Your task to perform on an android device: Add logitech g910 to the cart on target.com Image 0: 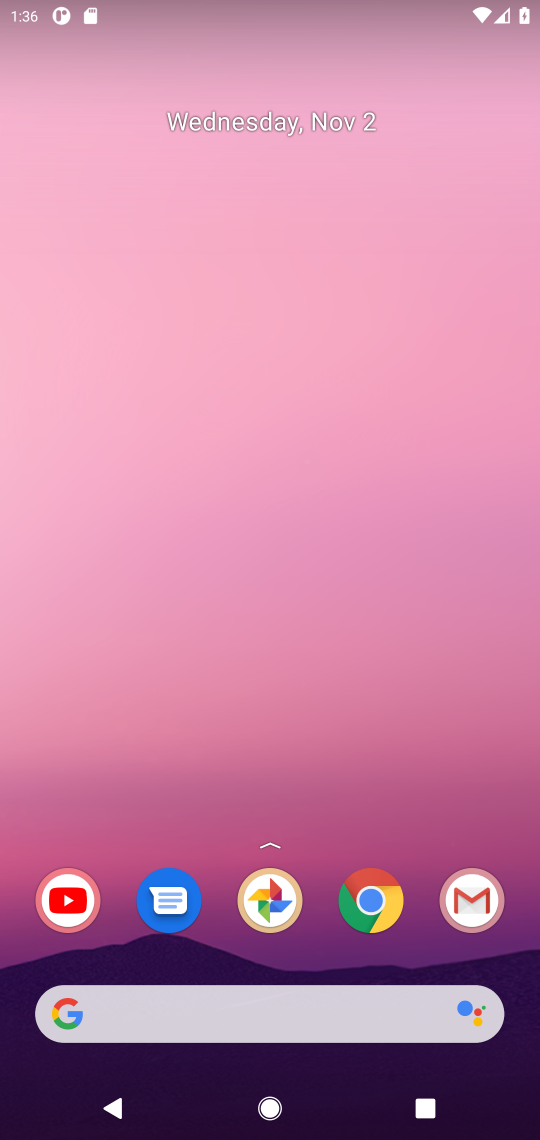
Step 0: click (382, 899)
Your task to perform on an android device: Add logitech g910 to the cart on target.com Image 1: 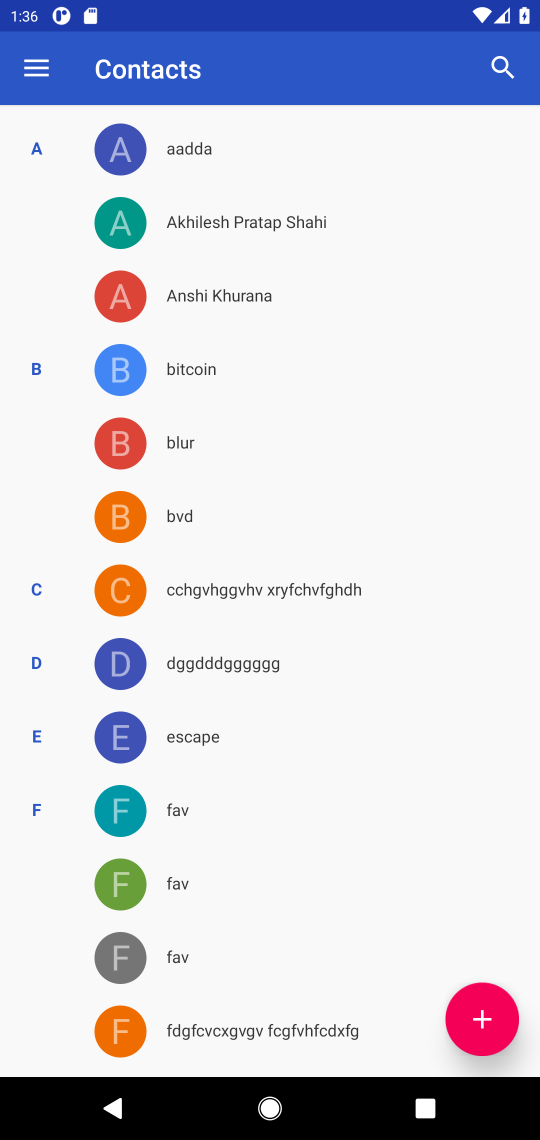
Step 1: press home button
Your task to perform on an android device: Add logitech g910 to the cart on target.com Image 2: 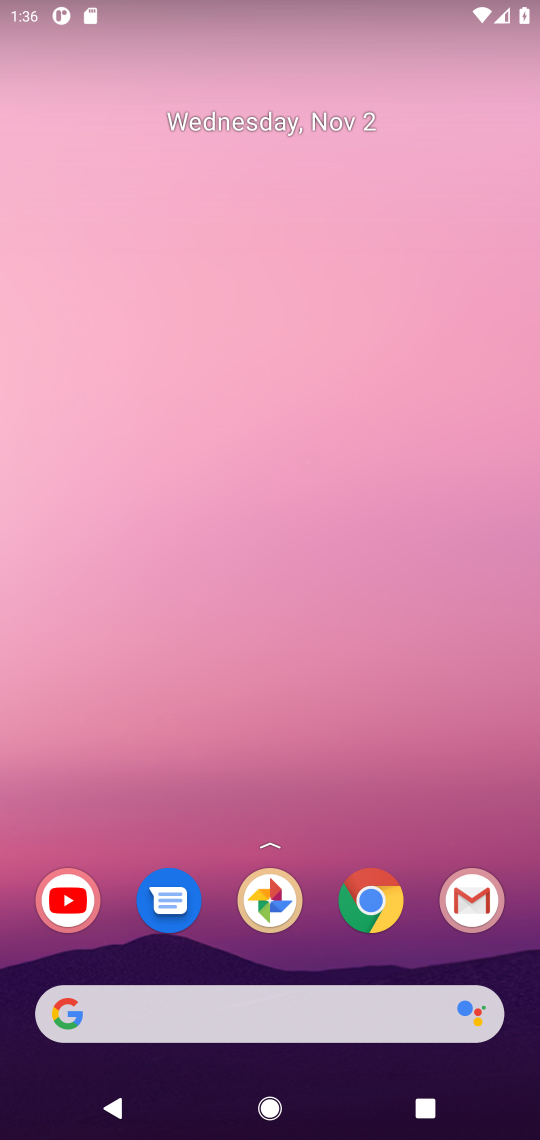
Step 2: click (375, 894)
Your task to perform on an android device: Add logitech g910 to the cart on target.com Image 3: 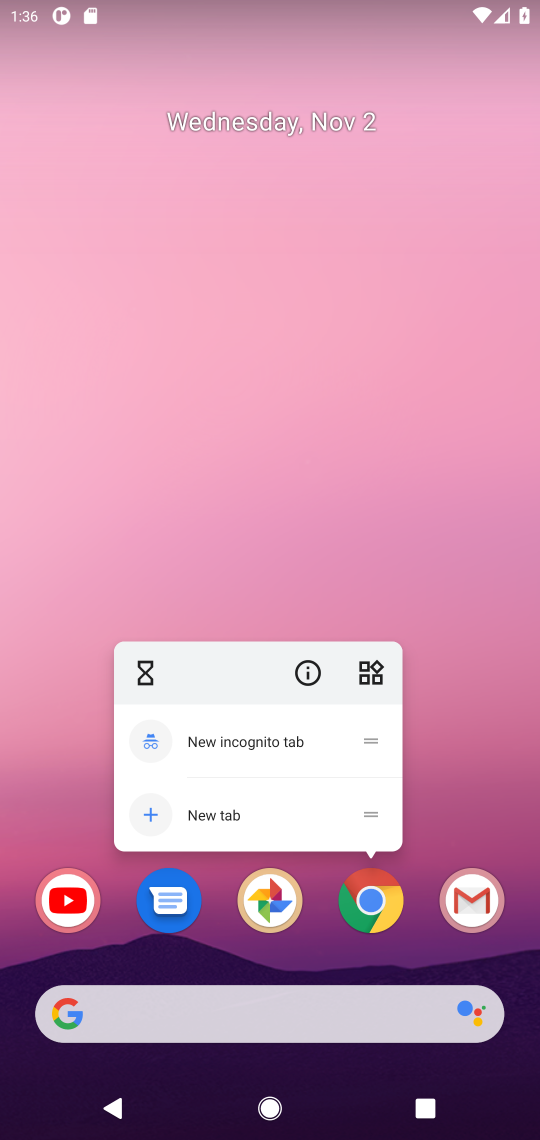
Step 3: click (364, 894)
Your task to perform on an android device: Add logitech g910 to the cart on target.com Image 4: 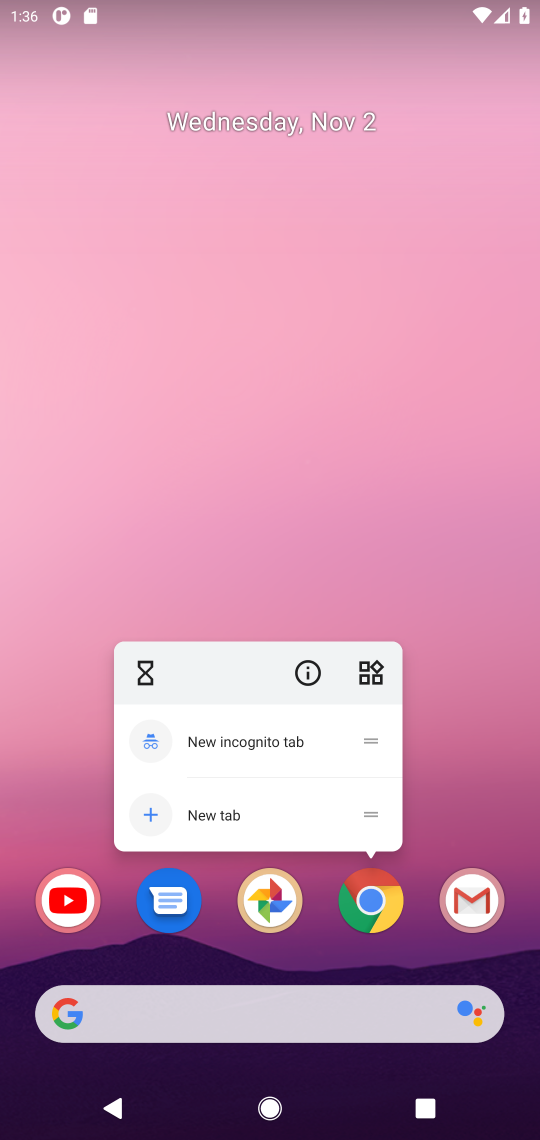
Step 4: click (365, 888)
Your task to perform on an android device: Add logitech g910 to the cart on target.com Image 5: 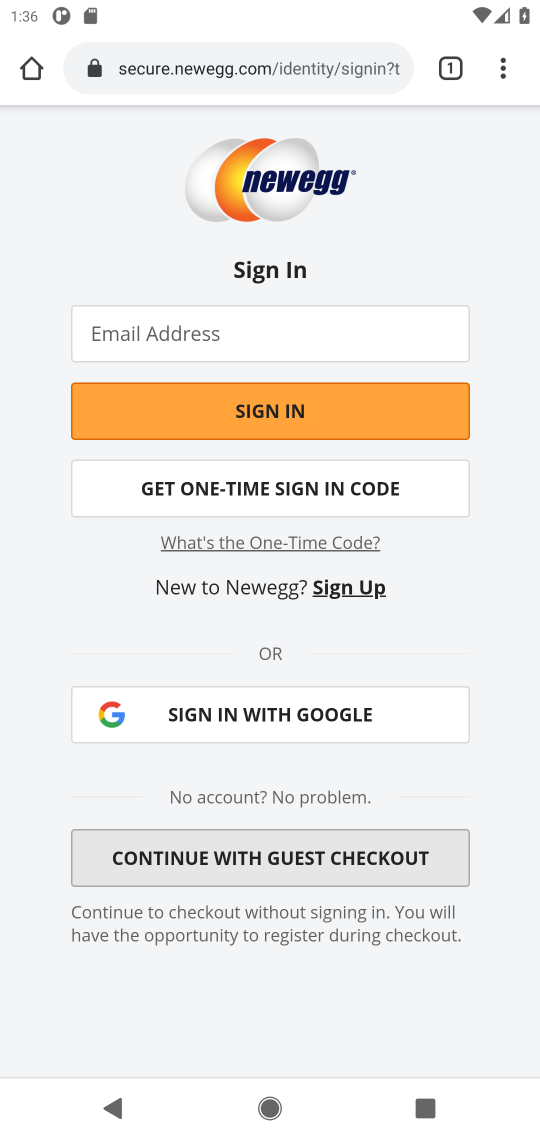
Step 5: click (248, 69)
Your task to perform on an android device: Add logitech g910 to the cart on target.com Image 6: 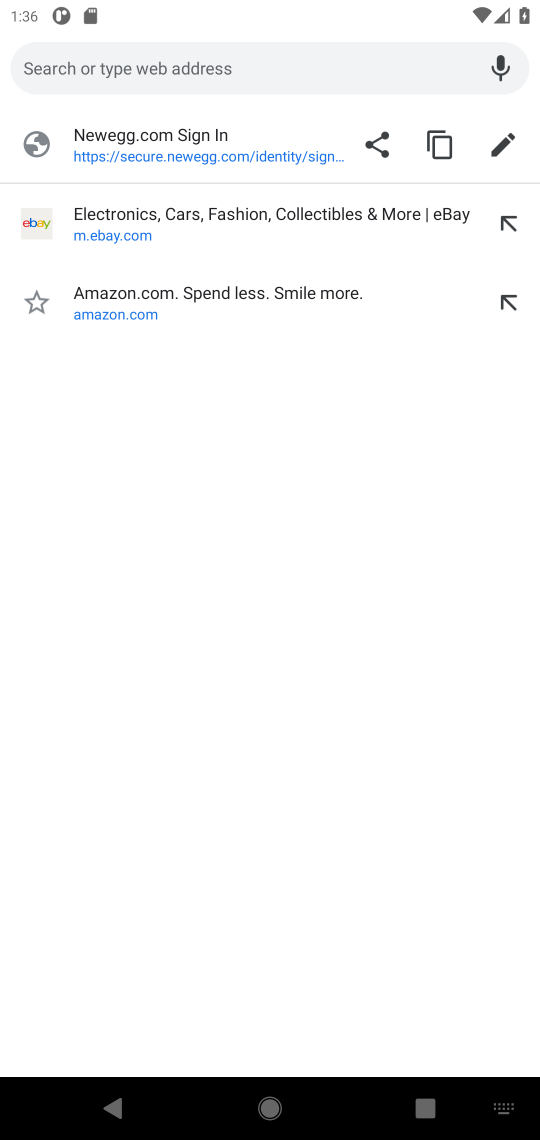
Step 6: type "target"
Your task to perform on an android device: Add logitech g910 to the cart on target.com Image 7: 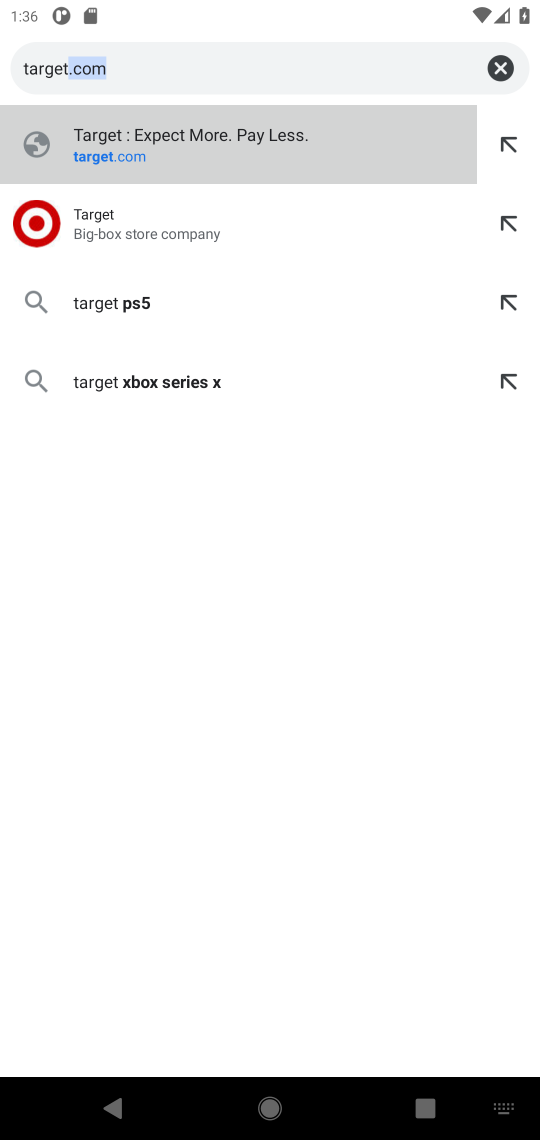
Step 7: click (122, 228)
Your task to perform on an android device: Add logitech g910 to the cart on target.com Image 8: 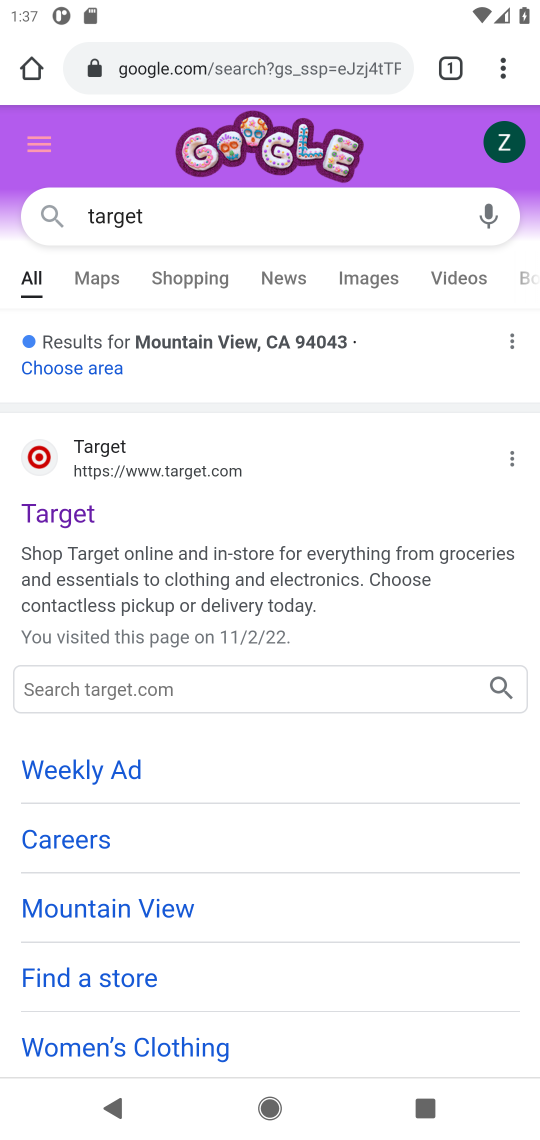
Step 8: click (65, 524)
Your task to perform on an android device: Add logitech g910 to the cart on target.com Image 9: 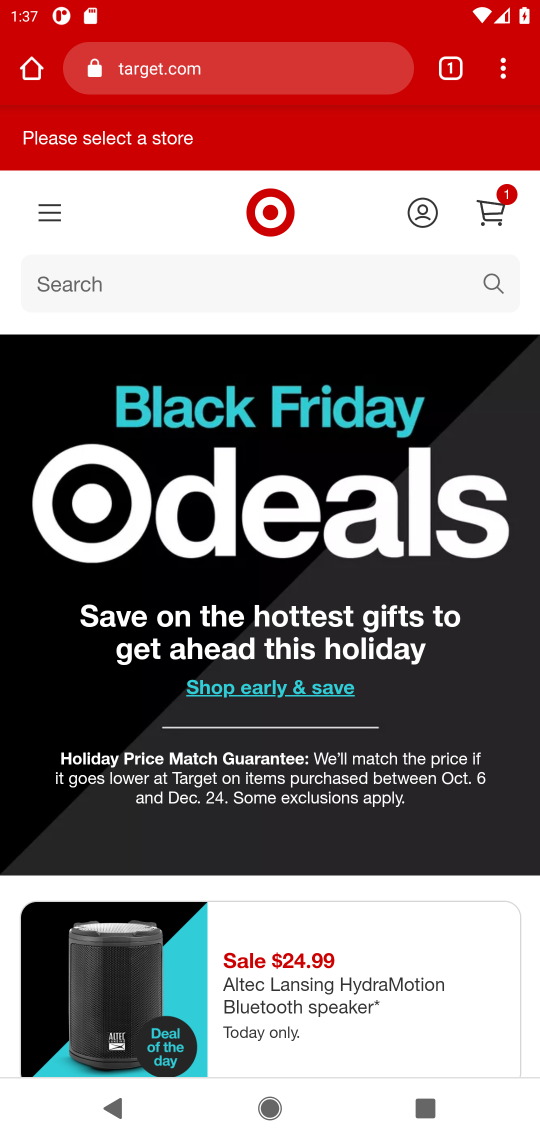
Step 9: click (488, 274)
Your task to perform on an android device: Add logitech g910 to the cart on target.com Image 10: 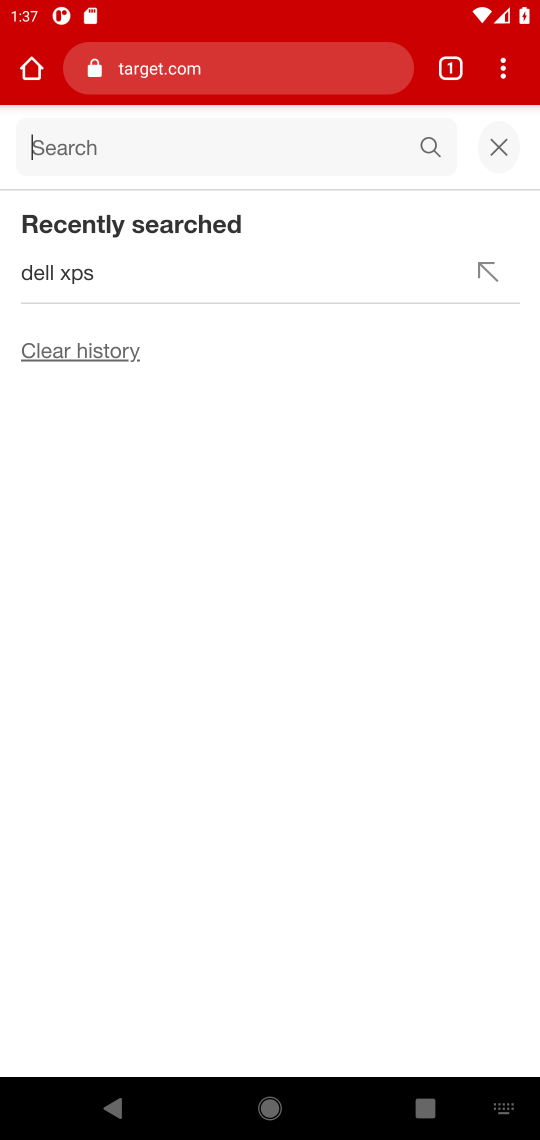
Step 10: type "logitech g 910"
Your task to perform on an android device: Add logitech g910 to the cart on target.com Image 11: 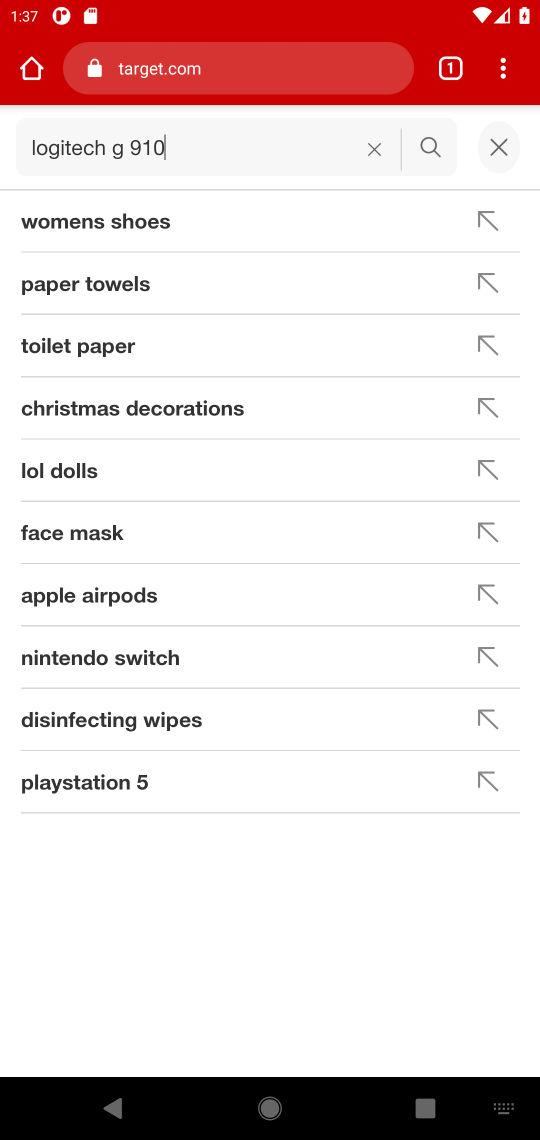
Step 11: type ""
Your task to perform on an android device: Add logitech g910 to the cart on target.com Image 12: 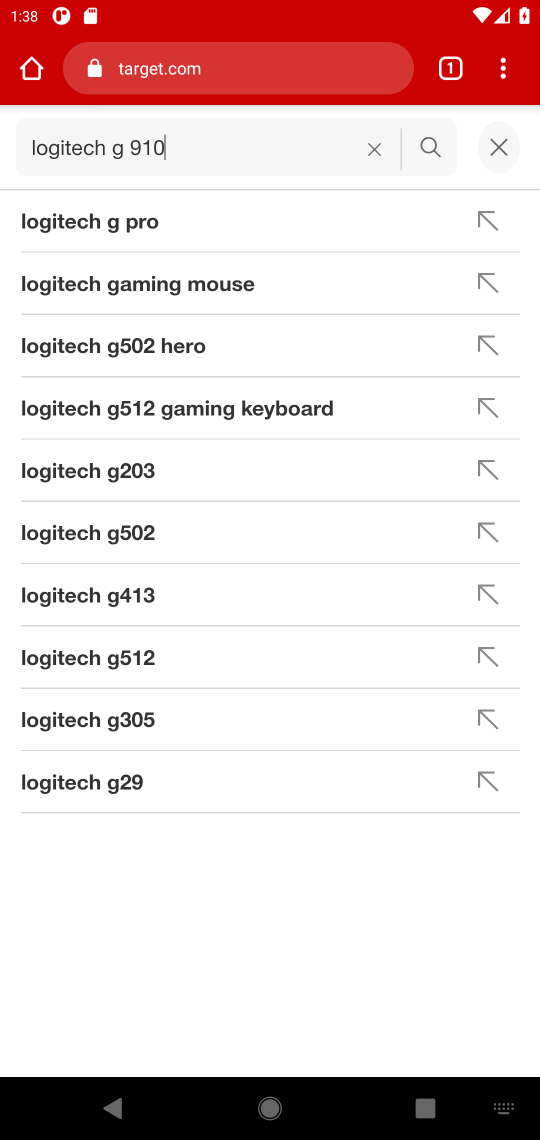
Step 12: click (143, 228)
Your task to perform on an android device: Add logitech g910 to the cart on target.com Image 13: 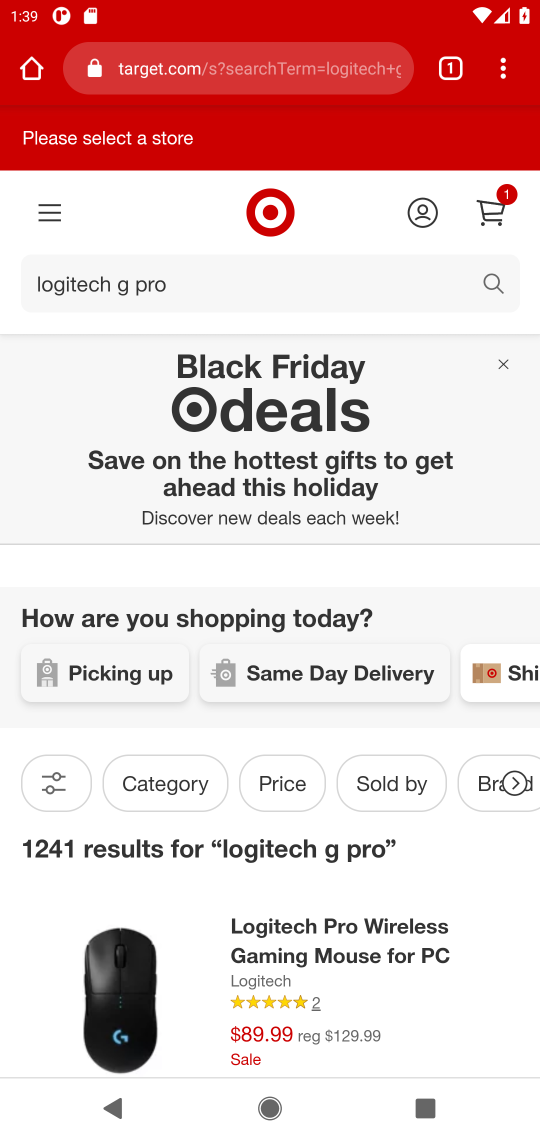
Step 13: drag from (257, 989) to (337, 253)
Your task to perform on an android device: Add logitech g910 to the cart on target.com Image 14: 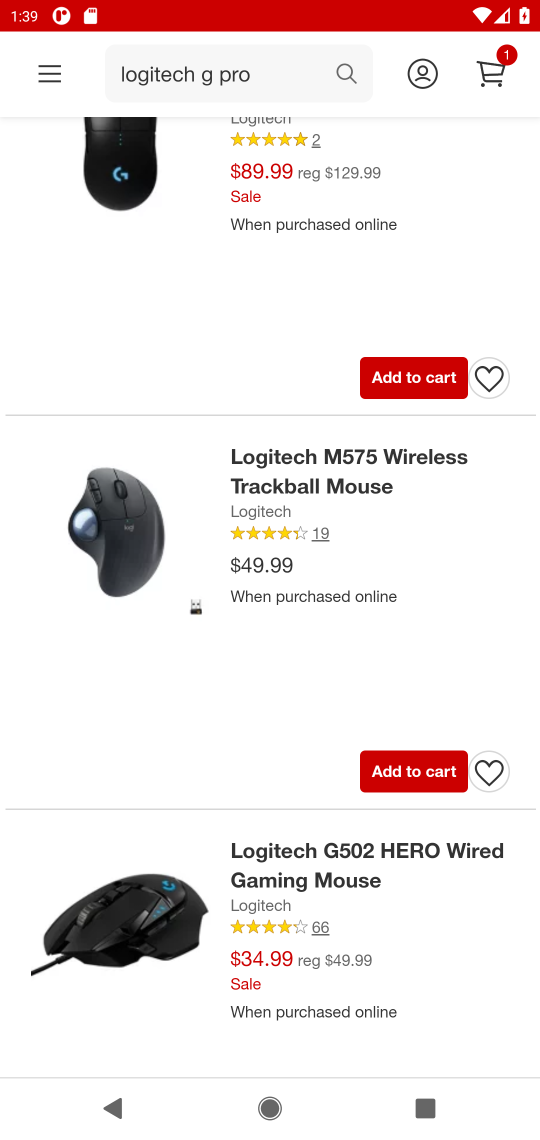
Step 14: drag from (293, 756) to (43, 340)
Your task to perform on an android device: Add logitech g910 to the cart on target.com Image 15: 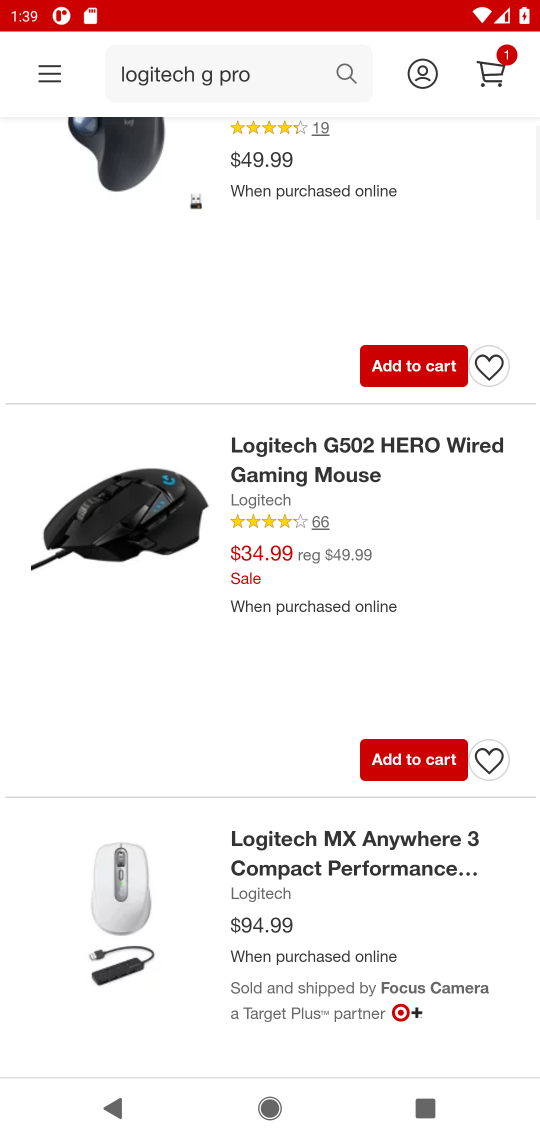
Step 15: drag from (171, 583) to (167, 360)
Your task to perform on an android device: Add logitech g910 to the cart on target.com Image 16: 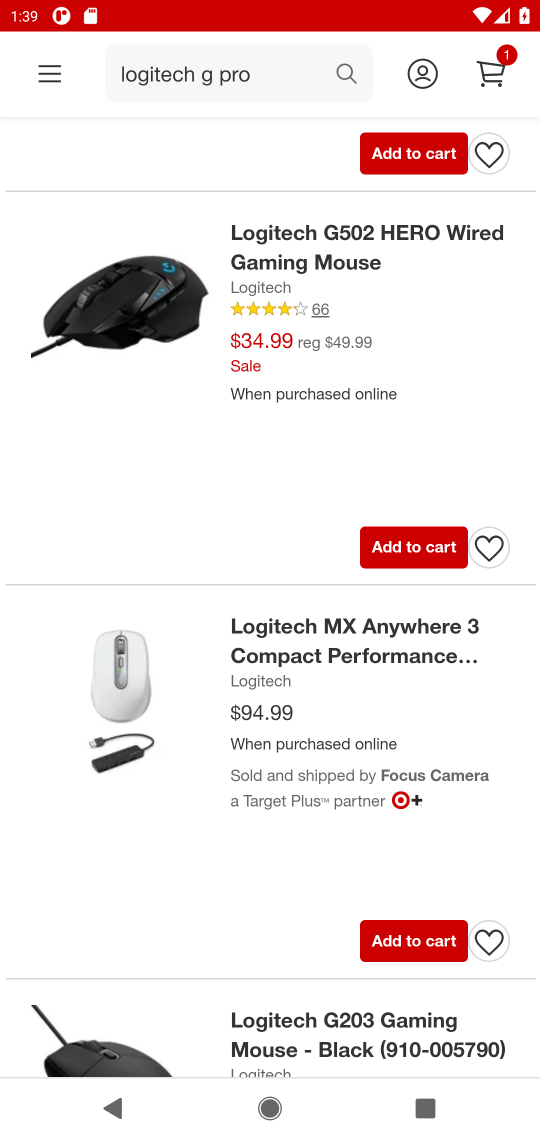
Step 16: drag from (232, 978) to (202, 121)
Your task to perform on an android device: Add logitech g910 to the cart on target.com Image 17: 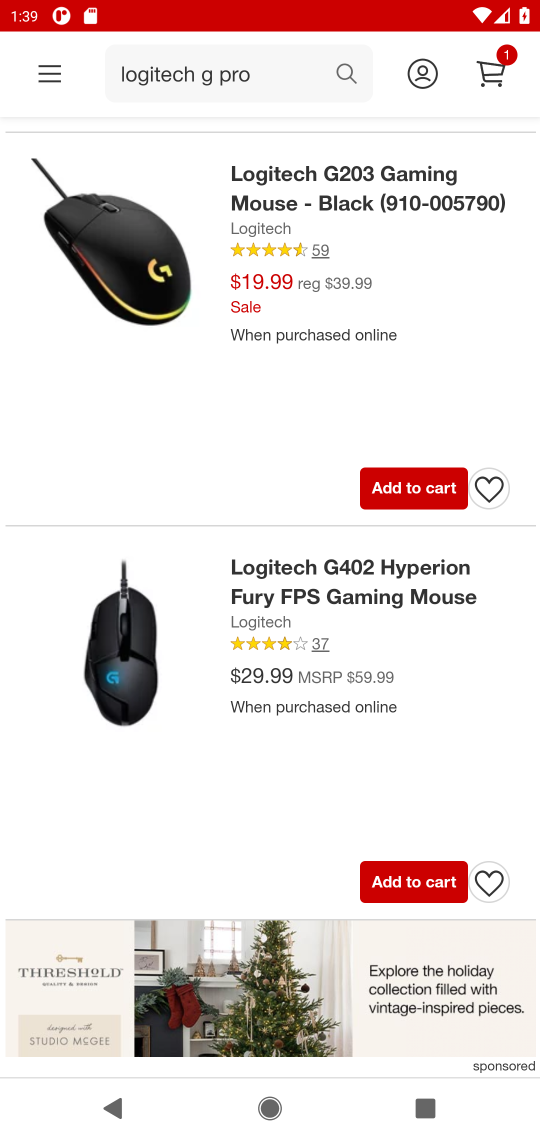
Step 17: click (288, 584)
Your task to perform on an android device: Add logitech g910 to the cart on target.com Image 18: 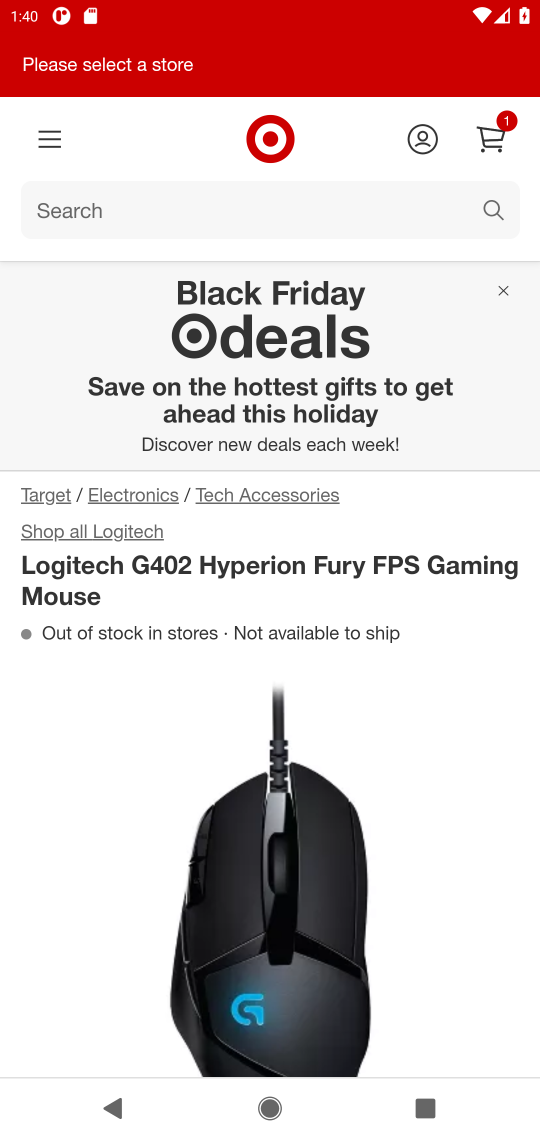
Step 18: drag from (412, 910) to (481, 539)
Your task to perform on an android device: Add logitech g910 to the cart on target.com Image 19: 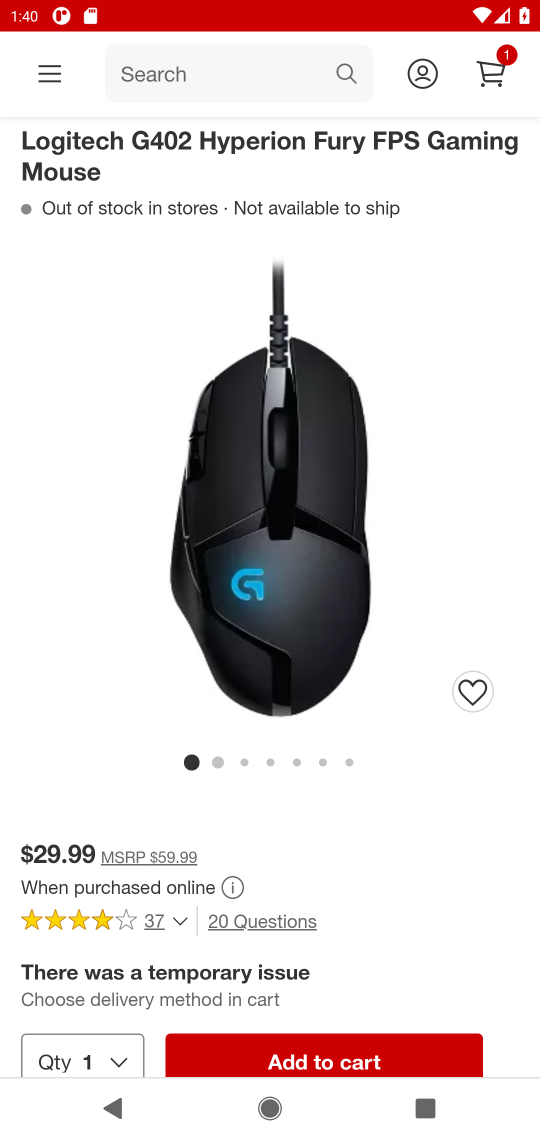
Step 19: drag from (250, 899) to (246, 592)
Your task to perform on an android device: Add logitech g910 to the cart on target.com Image 20: 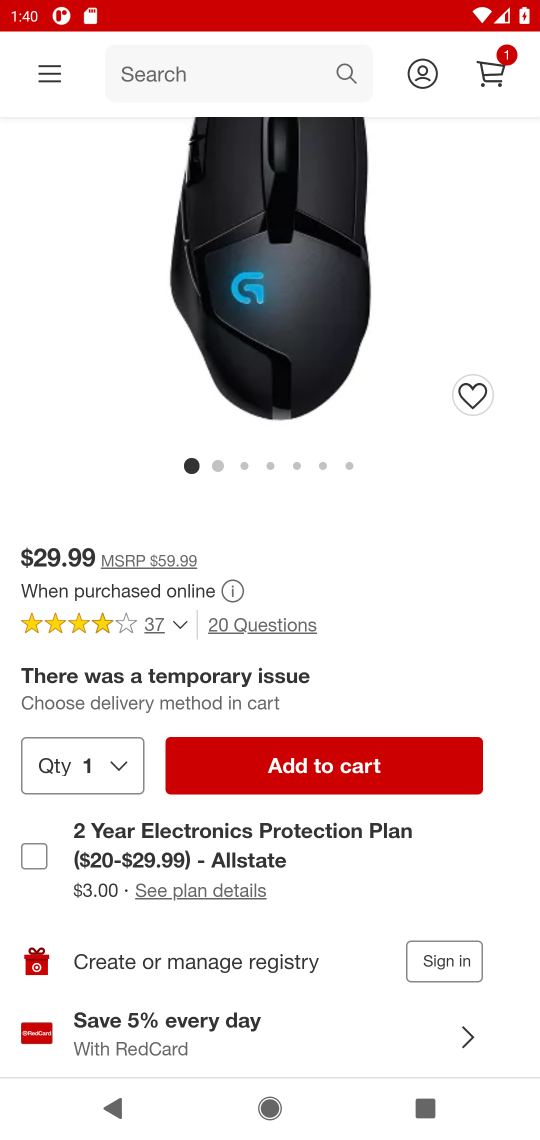
Step 20: click (299, 777)
Your task to perform on an android device: Add logitech g910 to the cart on target.com Image 21: 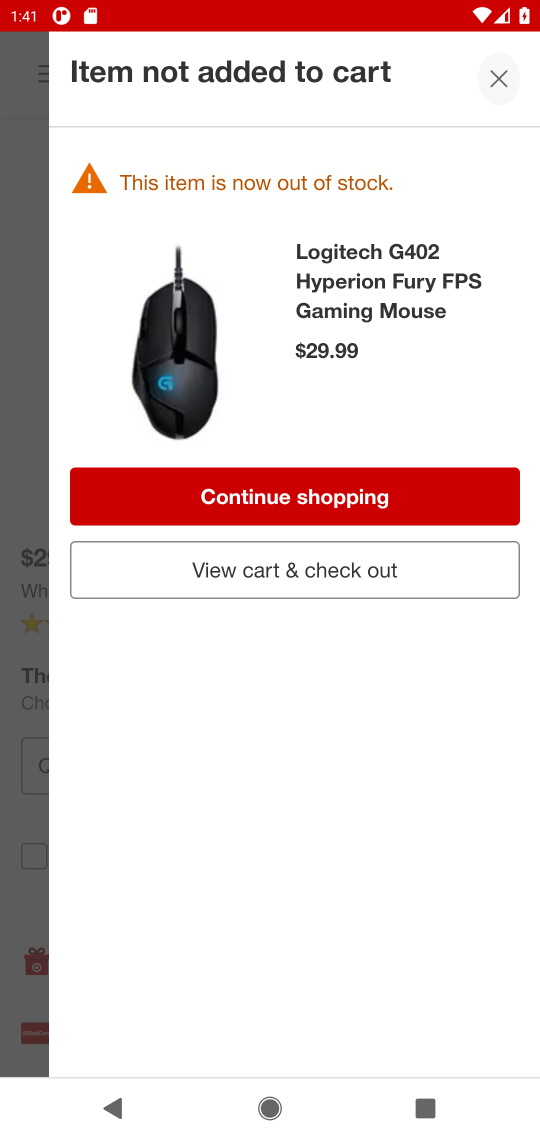
Step 21: click (240, 567)
Your task to perform on an android device: Add logitech g910 to the cart on target.com Image 22: 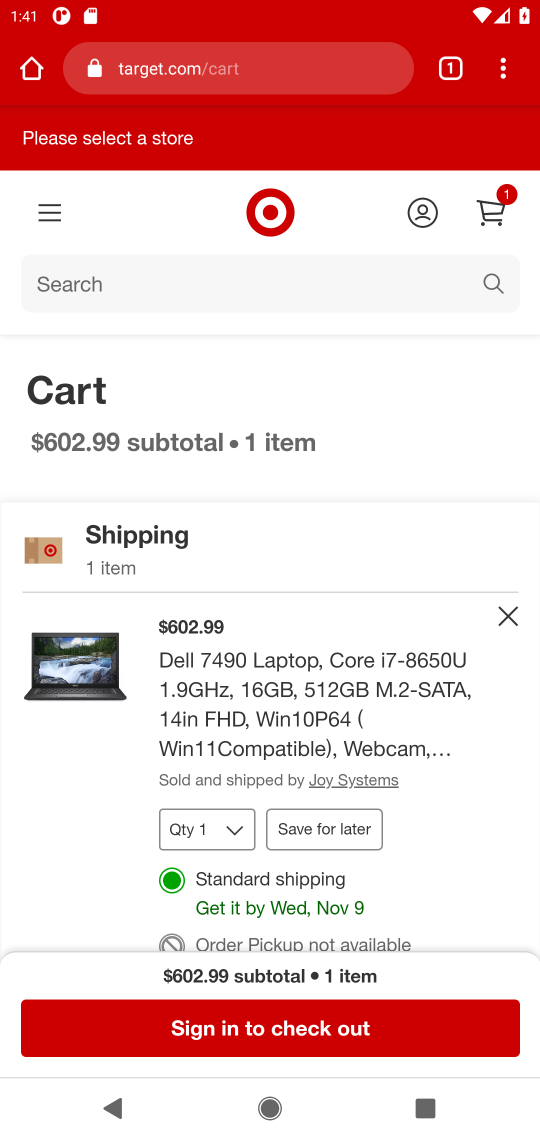
Step 22: click (313, 1038)
Your task to perform on an android device: Add logitech g910 to the cart on target.com Image 23: 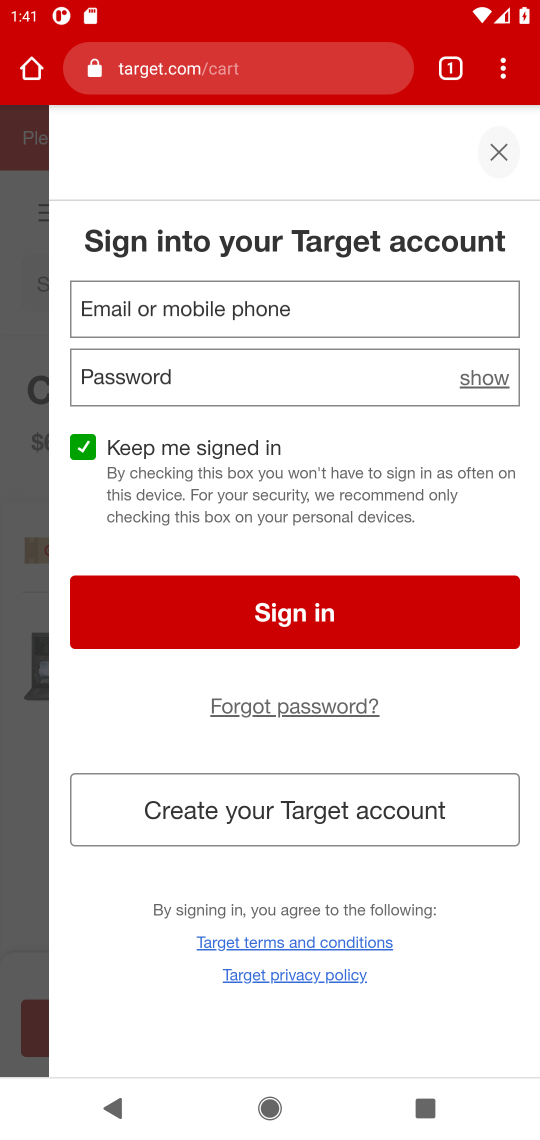
Step 23: click (491, 147)
Your task to perform on an android device: Add logitech g910 to the cart on target.com Image 24: 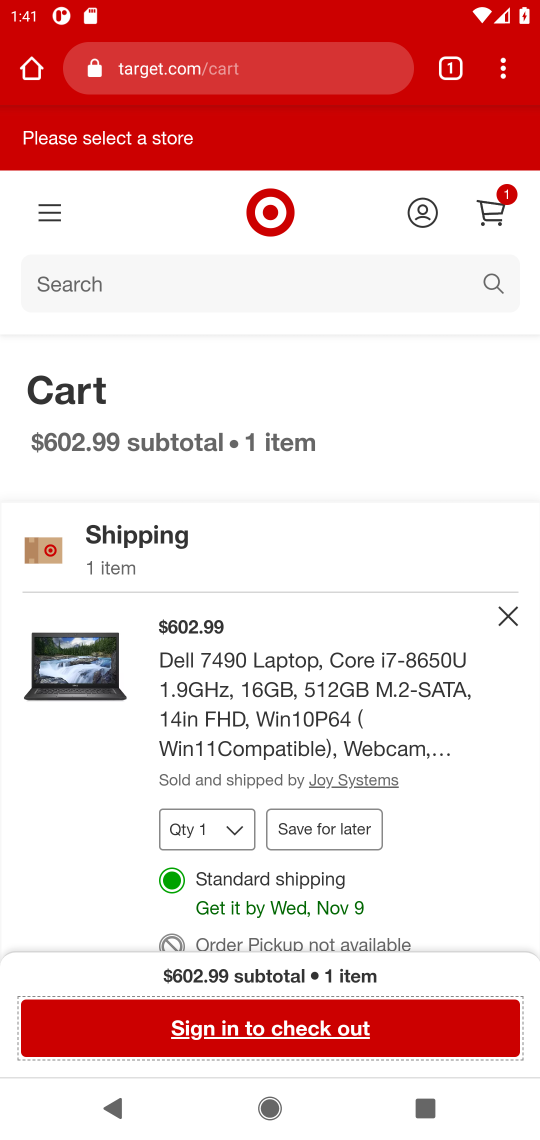
Step 24: click (253, 69)
Your task to perform on an android device: Add logitech g910 to the cart on target.com Image 25: 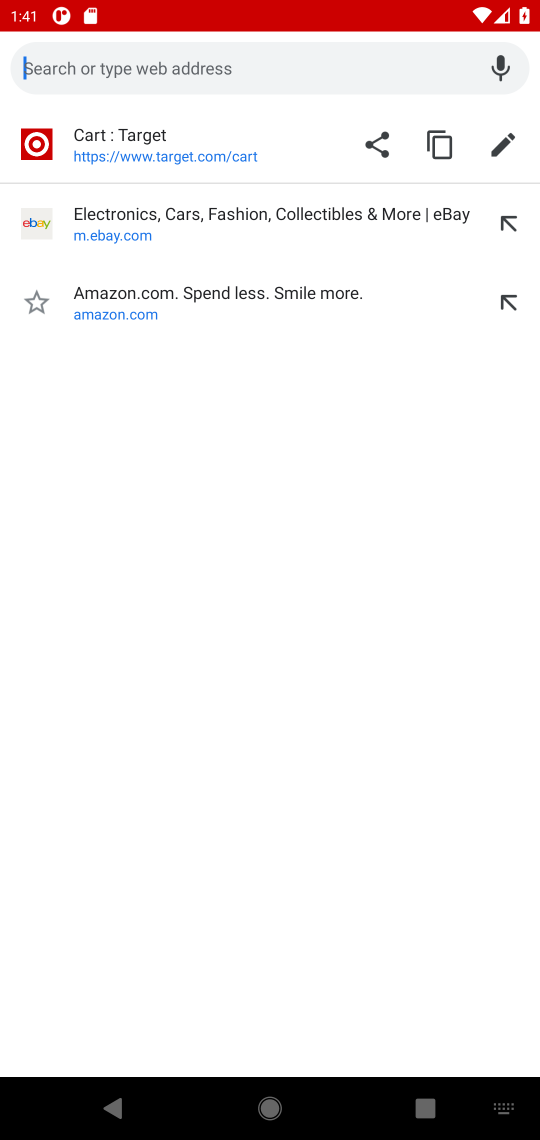
Step 25: task complete